Your task to perform on an android device: What's on my calendar tomorrow? Image 0: 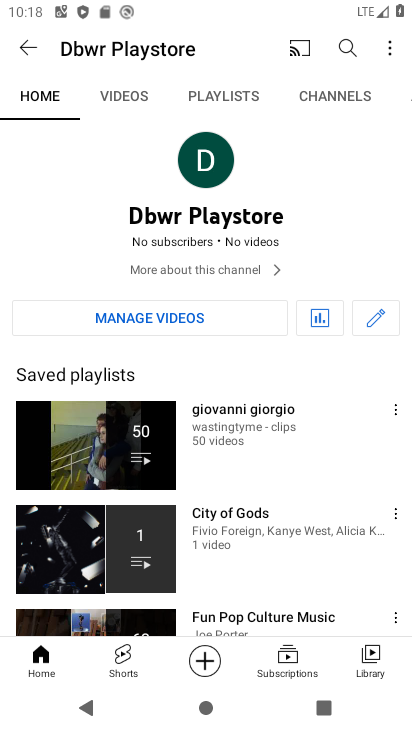
Step 0: press home button
Your task to perform on an android device: What's on my calendar tomorrow? Image 1: 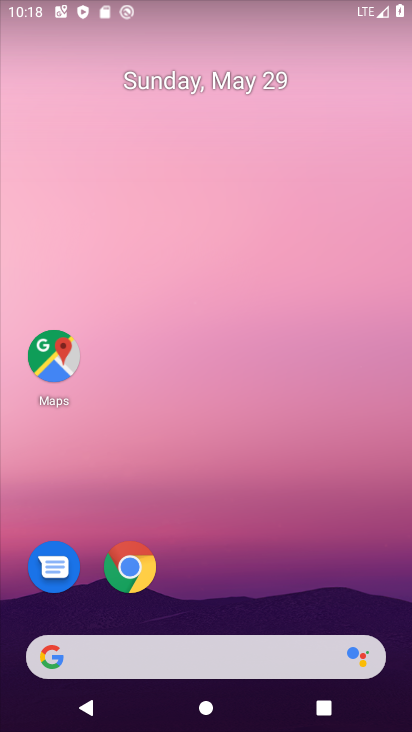
Step 1: drag from (379, 614) to (335, 270)
Your task to perform on an android device: What's on my calendar tomorrow? Image 2: 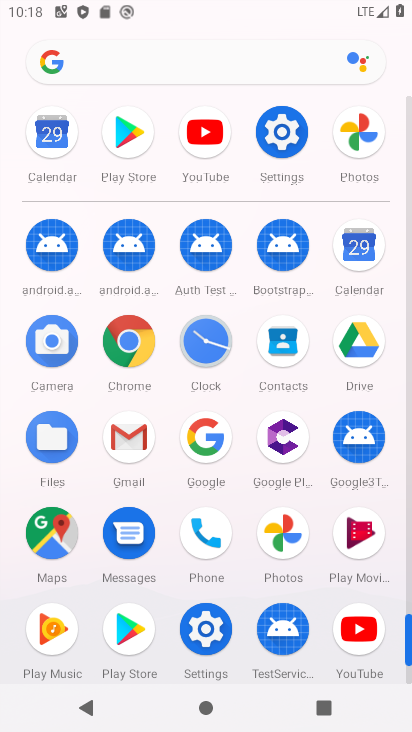
Step 2: click (359, 246)
Your task to perform on an android device: What's on my calendar tomorrow? Image 3: 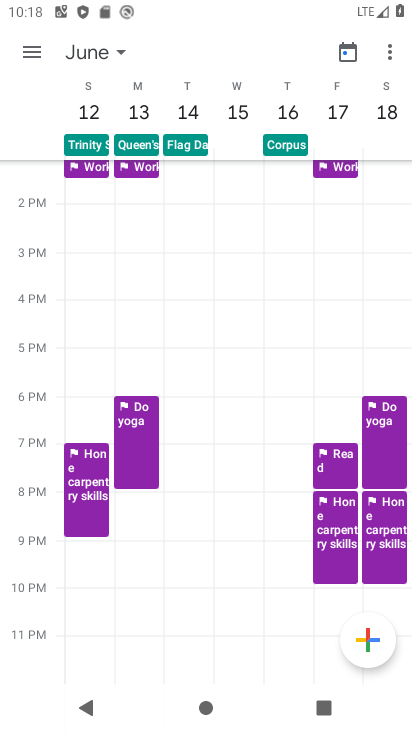
Step 3: click (39, 50)
Your task to perform on an android device: What's on my calendar tomorrow? Image 4: 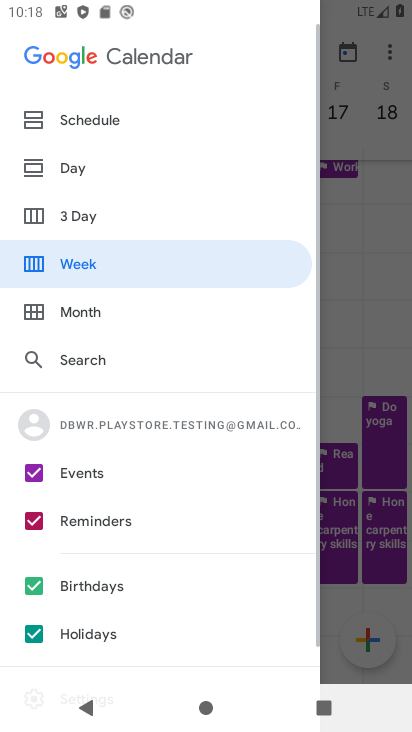
Step 4: click (72, 172)
Your task to perform on an android device: What's on my calendar tomorrow? Image 5: 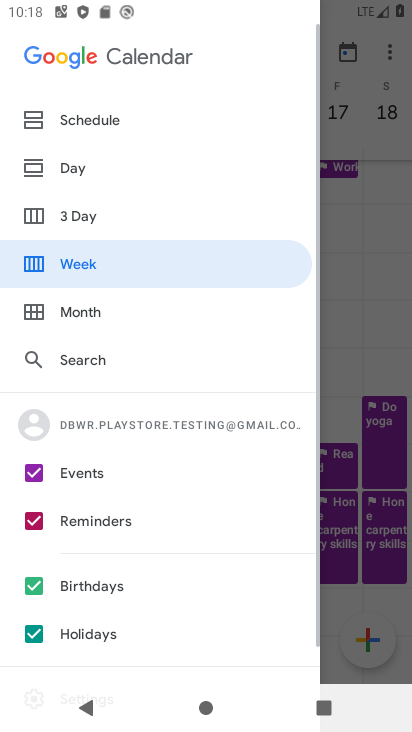
Step 5: click (72, 166)
Your task to perform on an android device: What's on my calendar tomorrow? Image 6: 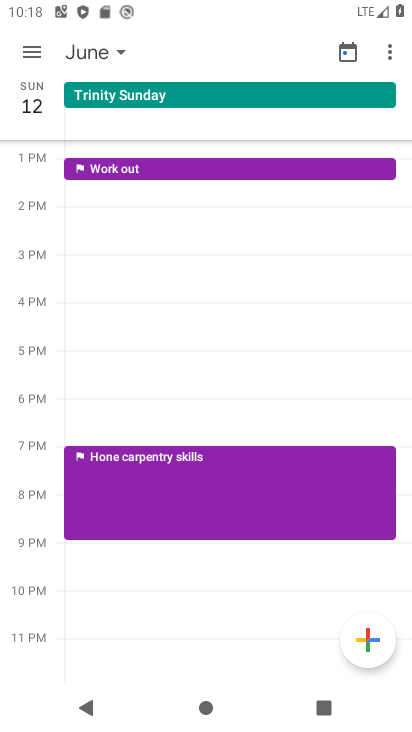
Step 6: click (114, 58)
Your task to perform on an android device: What's on my calendar tomorrow? Image 7: 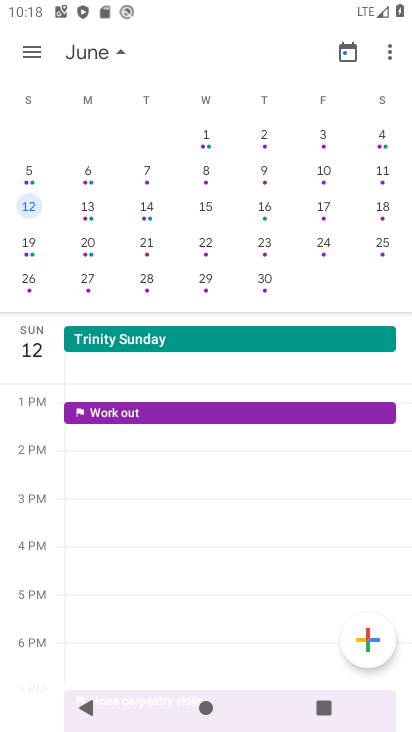
Step 7: drag from (21, 198) to (374, 173)
Your task to perform on an android device: What's on my calendar tomorrow? Image 8: 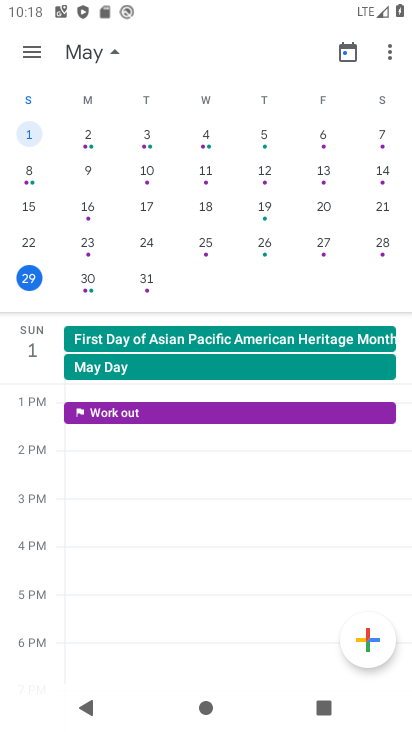
Step 8: click (89, 279)
Your task to perform on an android device: What's on my calendar tomorrow? Image 9: 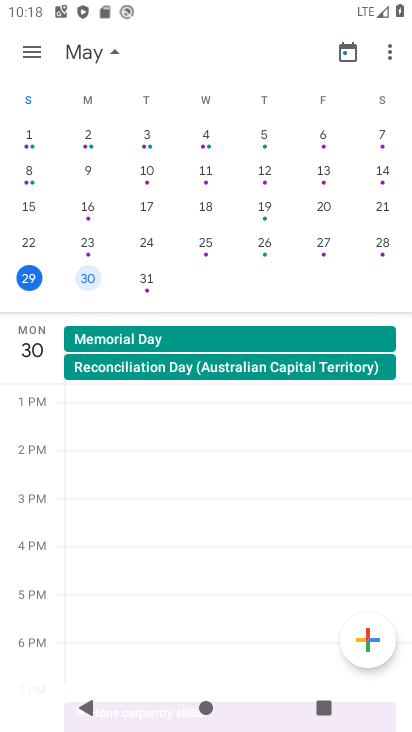
Step 9: task complete